Your task to perform on an android device: check the backup settings in the google photos Image 0: 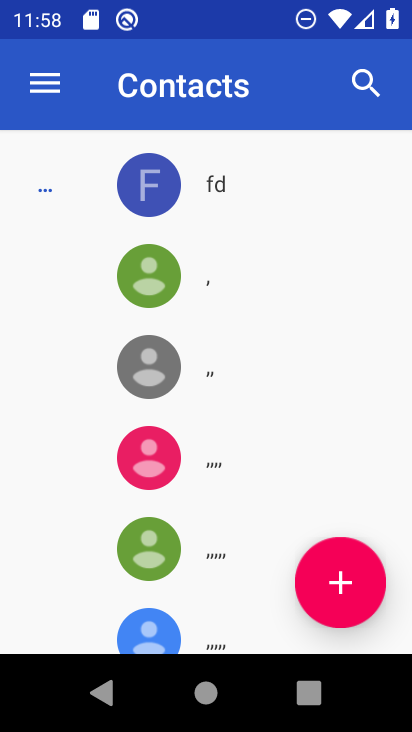
Step 0: press home button
Your task to perform on an android device: check the backup settings in the google photos Image 1: 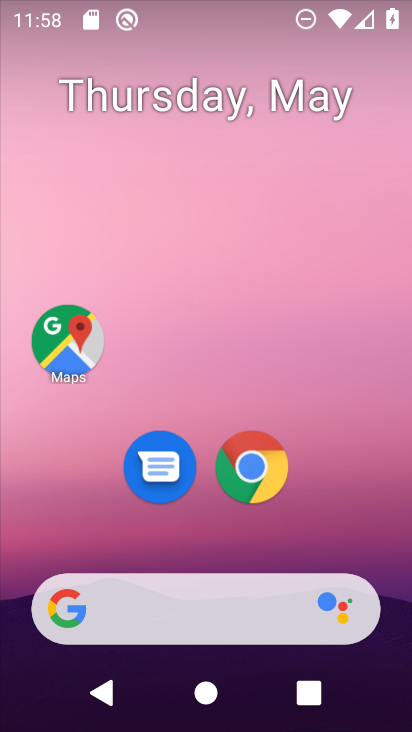
Step 1: drag from (254, 535) to (277, 215)
Your task to perform on an android device: check the backup settings in the google photos Image 2: 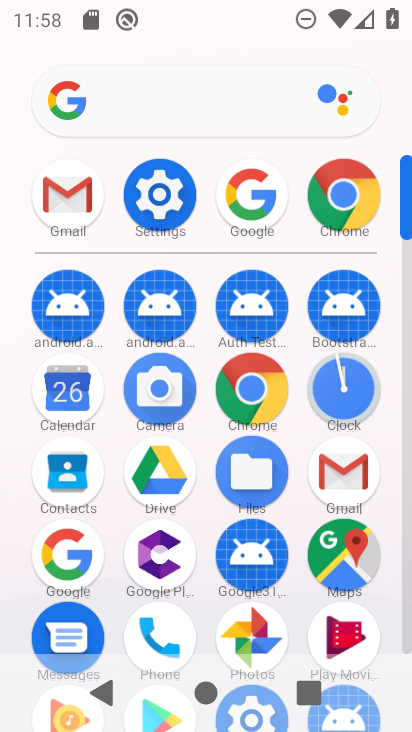
Step 2: drag from (214, 259) to (194, 59)
Your task to perform on an android device: check the backup settings in the google photos Image 3: 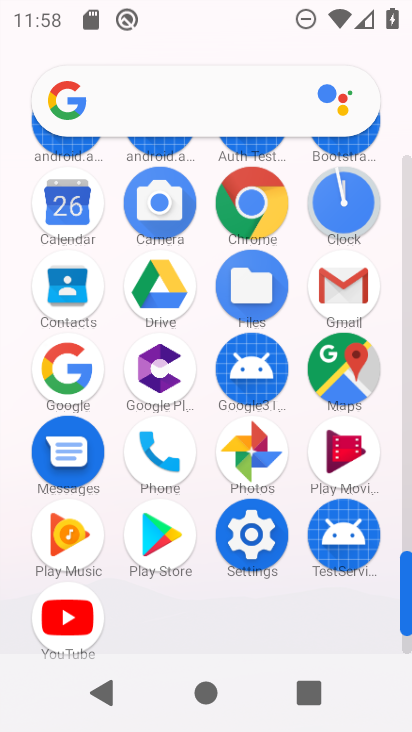
Step 3: click (260, 453)
Your task to perform on an android device: check the backup settings in the google photos Image 4: 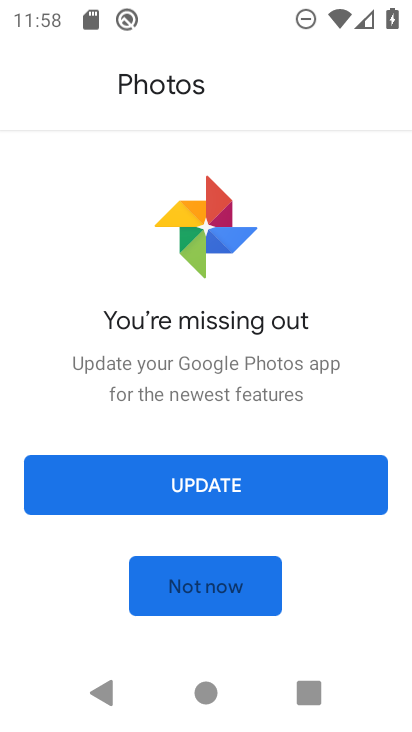
Step 4: click (231, 501)
Your task to perform on an android device: check the backup settings in the google photos Image 5: 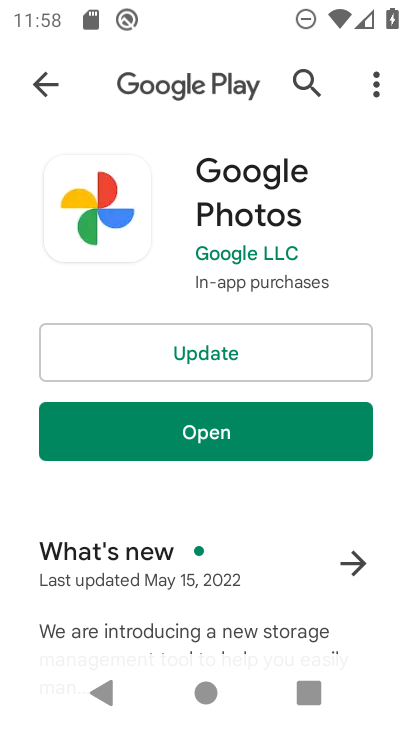
Step 5: click (252, 364)
Your task to perform on an android device: check the backup settings in the google photos Image 6: 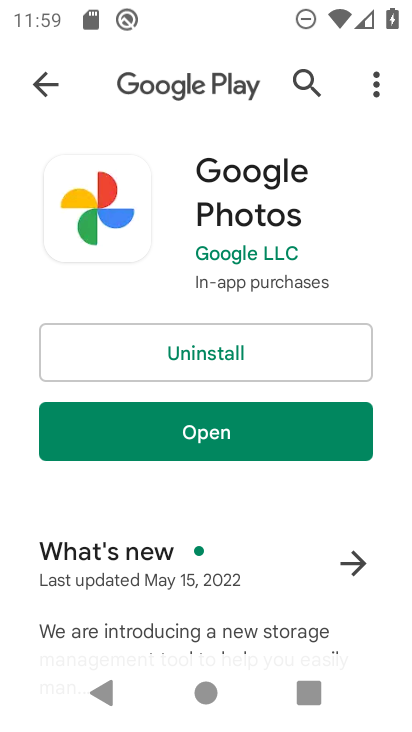
Step 6: click (225, 434)
Your task to perform on an android device: check the backup settings in the google photos Image 7: 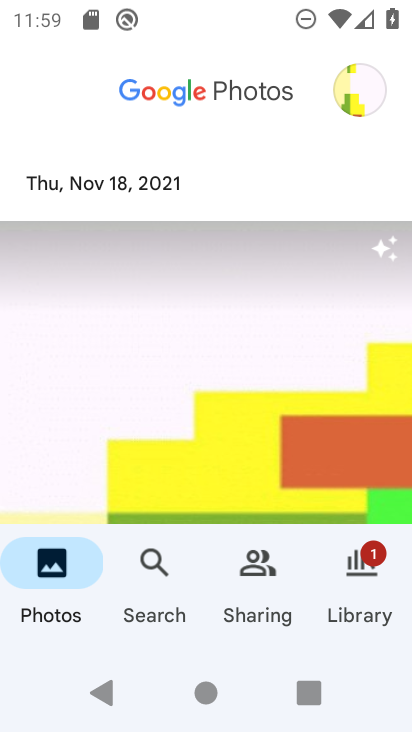
Step 7: click (359, 110)
Your task to perform on an android device: check the backup settings in the google photos Image 8: 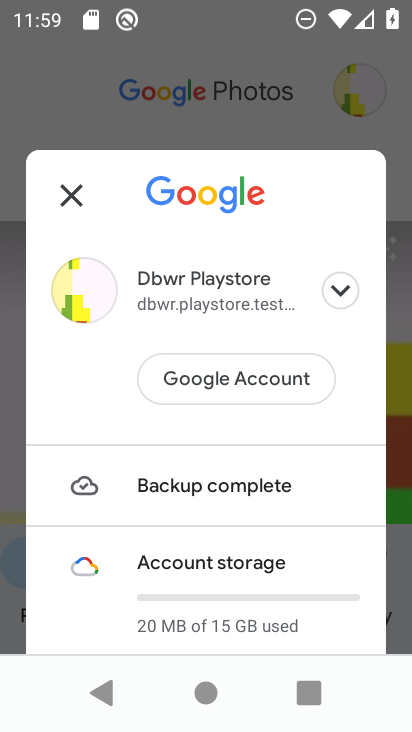
Step 8: drag from (214, 503) to (243, 223)
Your task to perform on an android device: check the backup settings in the google photos Image 9: 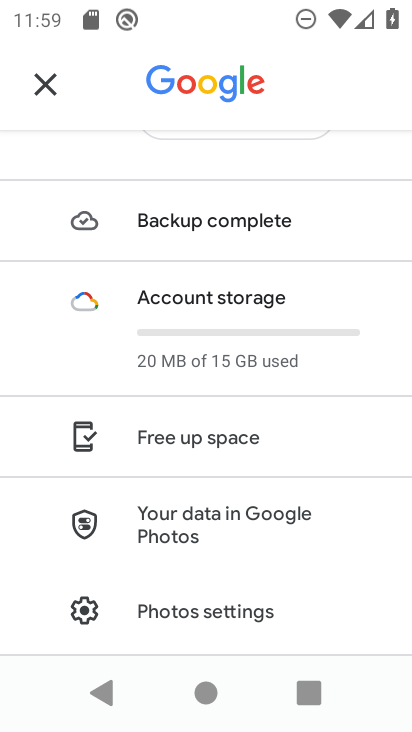
Step 9: click (213, 610)
Your task to perform on an android device: check the backup settings in the google photos Image 10: 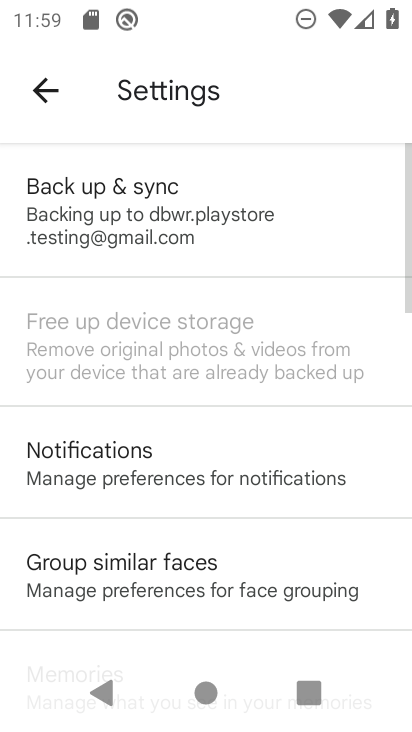
Step 10: click (216, 233)
Your task to perform on an android device: check the backup settings in the google photos Image 11: 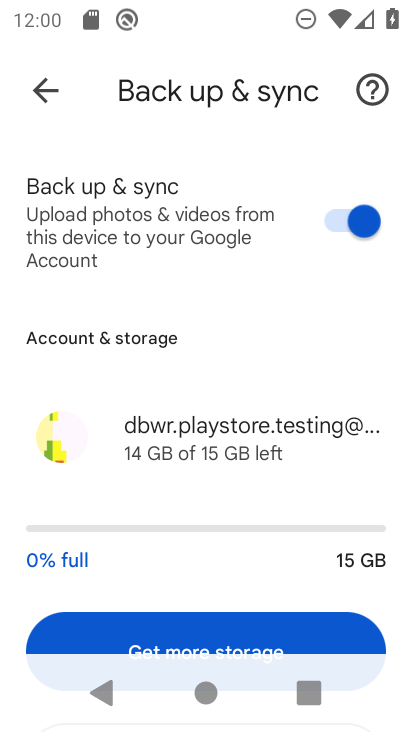
Step 11: task complete